Your task to perform on an android device: Search for vegetarian restaurants on Maps Image 0: 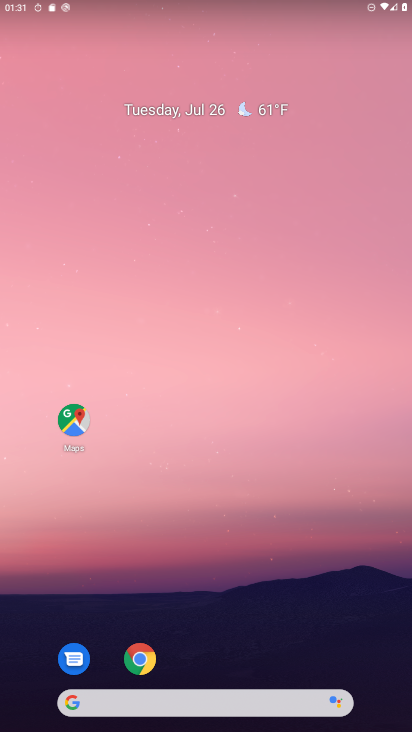
Step 0: click (56, 426)
Your task to perform on an android device: Search for vegetarian restaurants on Maps Image 1: 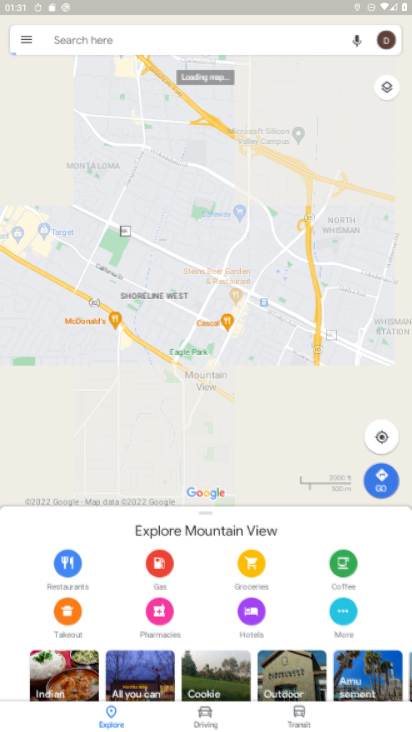
Step 1: click (78, 36)
Your task to perform on an android device: Search for vegetarian restaurants on Maps Image 2: 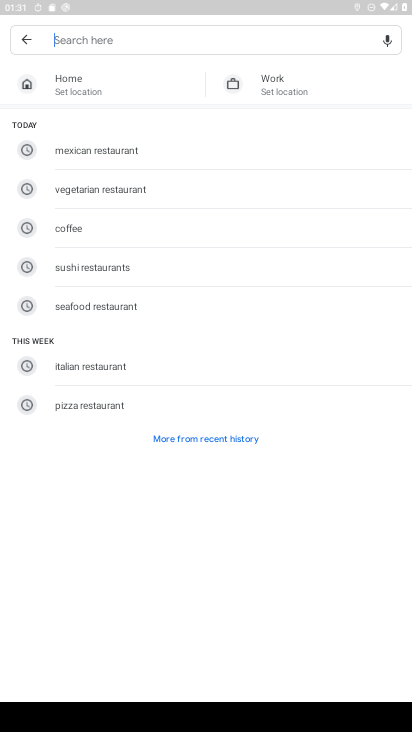
Step 2: click (92, 184)
Your task to perform on an android device: Search for vegetarian restaurants on Maps Image 3: 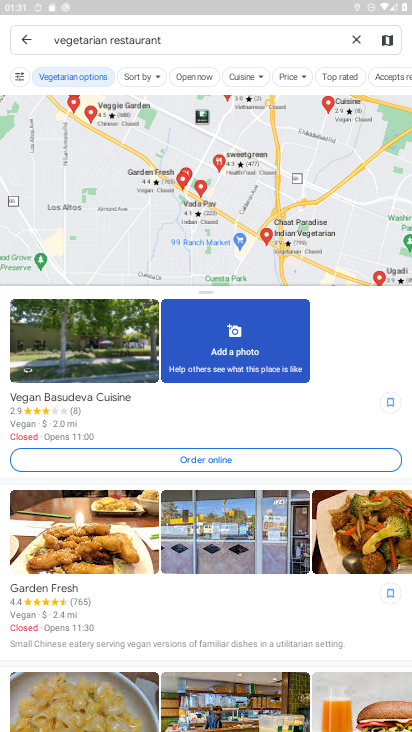
Step 3: task complete